Your task to perform on an android device: Open the Play Movies app and select the watchlist tab. Image 0: 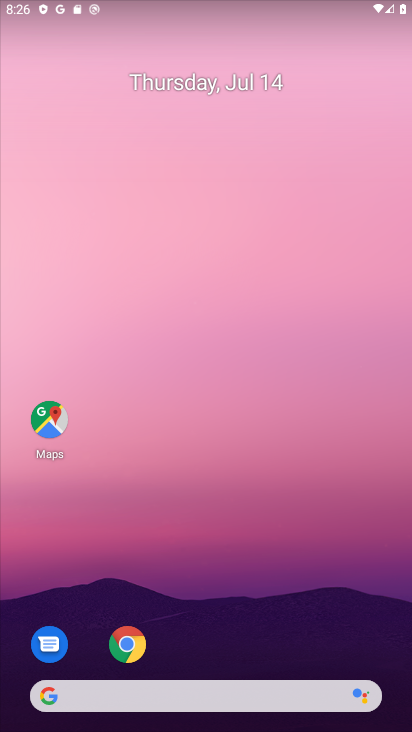
Step 0: drag from (208, 681) to (290, 91)
Your task to perform on an android device: Open the Play Movies app and select the watchlist tab. Image 1: 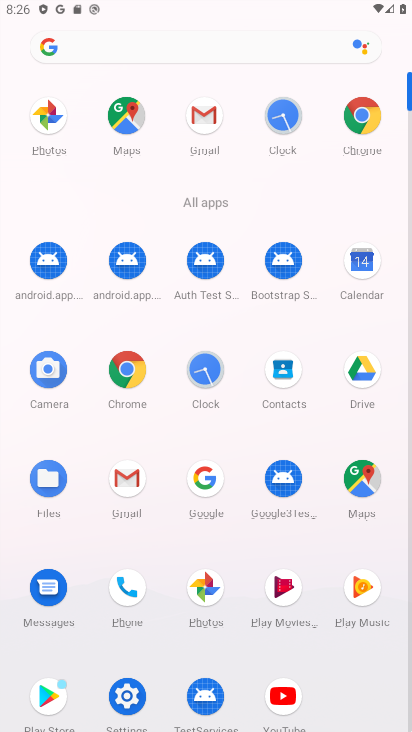
Step 1: click (278, 589)
Your task to perform on an android device: Open the Play Movies app and select the watchlist tab. Image 2: 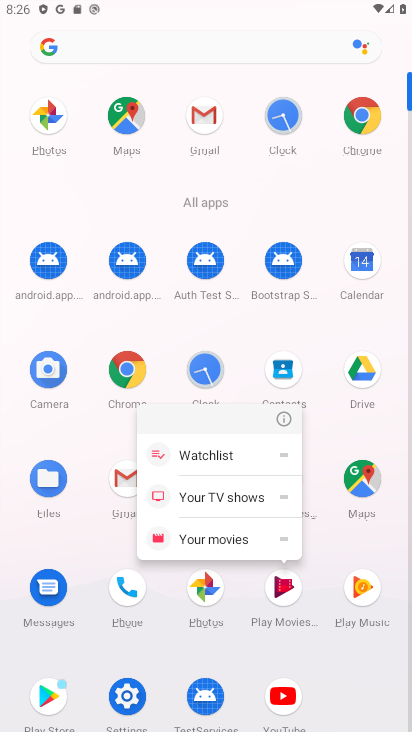
Step 2: click (278, 589)
Your task to perform on an android device: Open the Play Movies app and select the watchlist tab. Image 3: 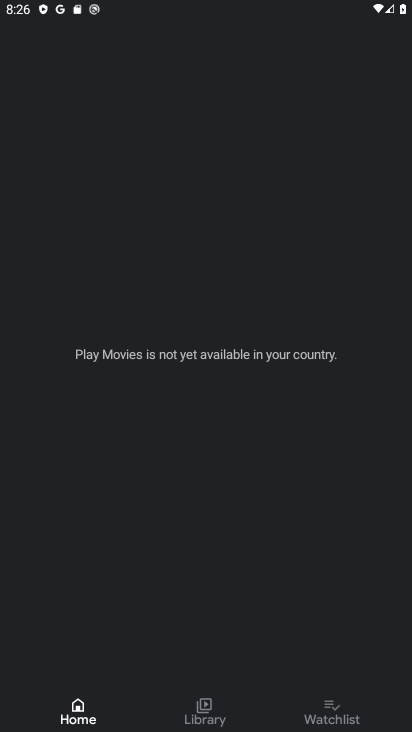
Step 3: click (339, 724)
Your task to perform on an android device: Open the Play Movies app and select the watchlist tab. Image 4: 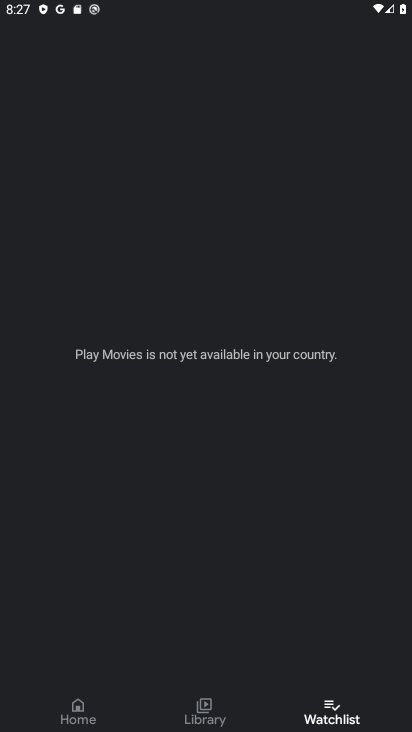
Step 4: task complete